Your task to perform on an android device: Check the news Image 0: 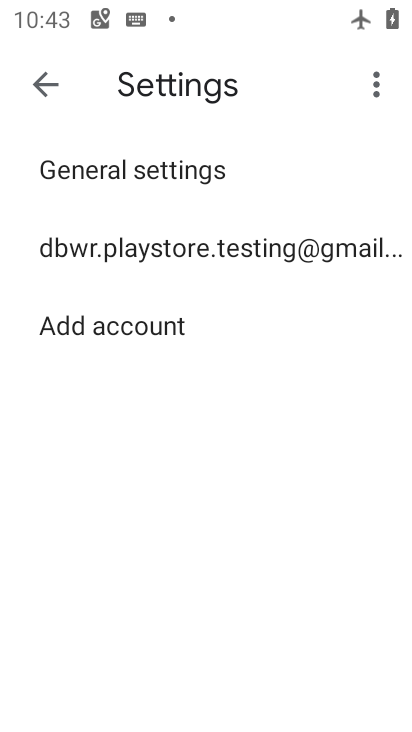
Step 0: click (30, 85)
Your task to perform on an android device: Check the news Image 1: 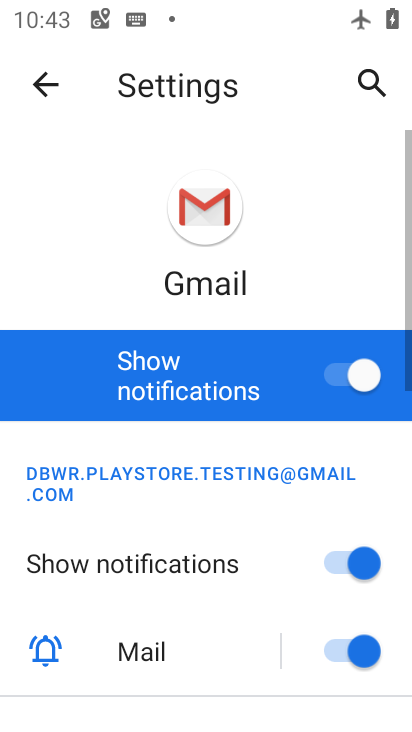
Step 1: press home button
Your task to perform on an android device: Check the news Image 2: 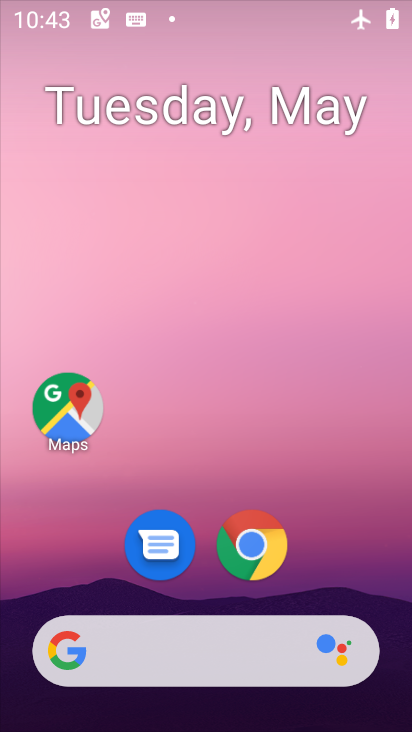
Step 2: drag from (206, 563) to (231, 96)
Your task to perform on an android device: Check the news Image 3: 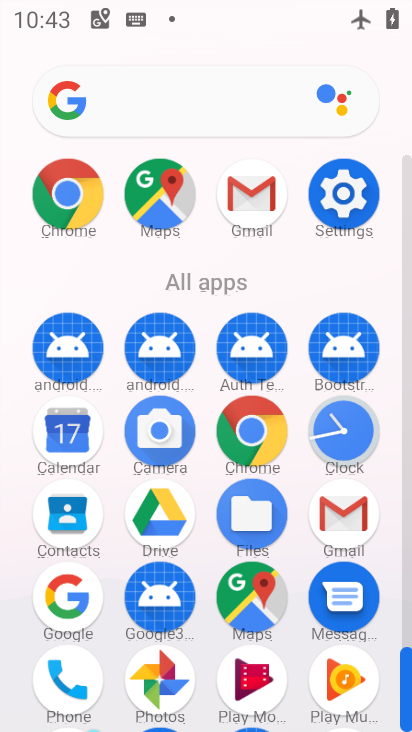
Step 3: click (87, 601)
Your task to perform on an android device: Check the news Image 4: 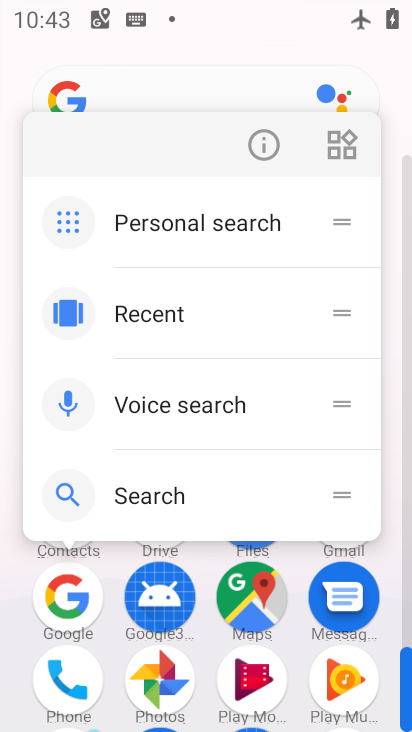
Step 4: click (68, 594)
Your task to perform on an android device: Check the news Image 5: 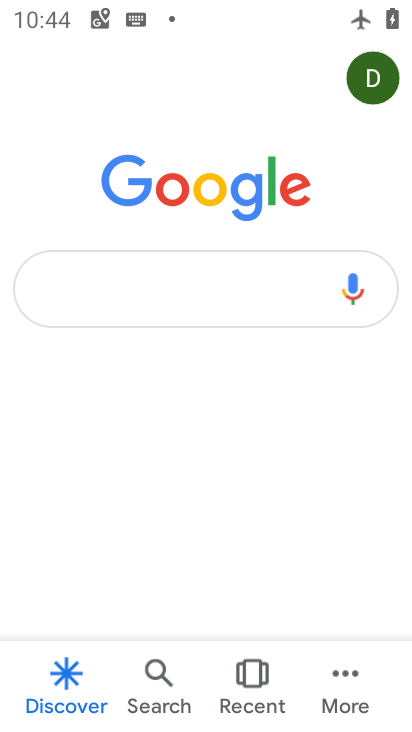
Step 5: click (165, 307)
Your task to perform on an android device: Check the news Image 6: 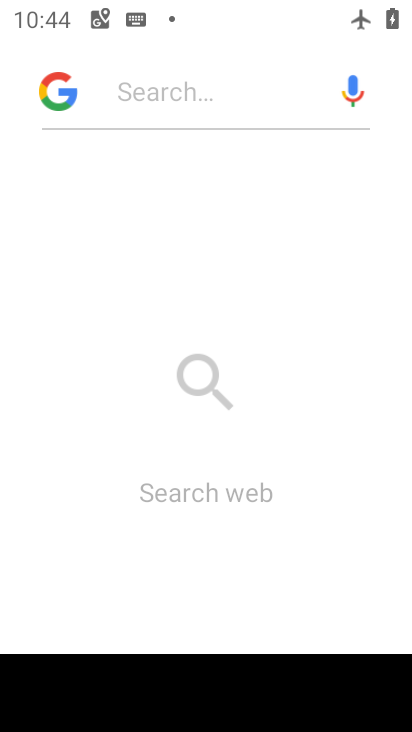
Step 6: type "news"
Your task to perform on an android device: Check the news Image 7: 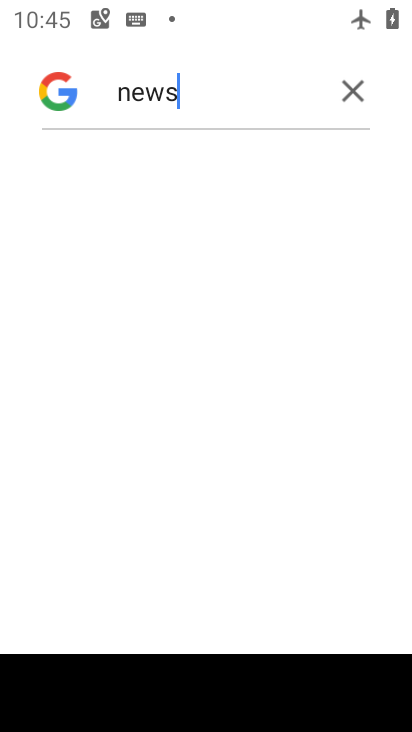
Step 7: task complete